Your task to perform on an android device: toggle pop-ups in chrome Image 0: 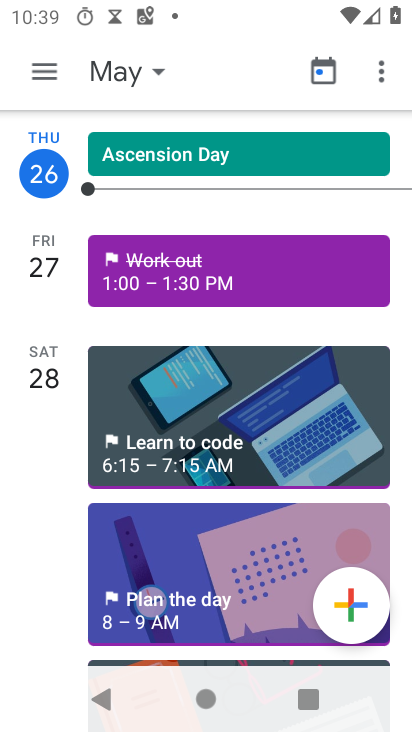
Step 0: press home button
Your task to perform on an android device: toggle pop-ups in chrome Image 1: 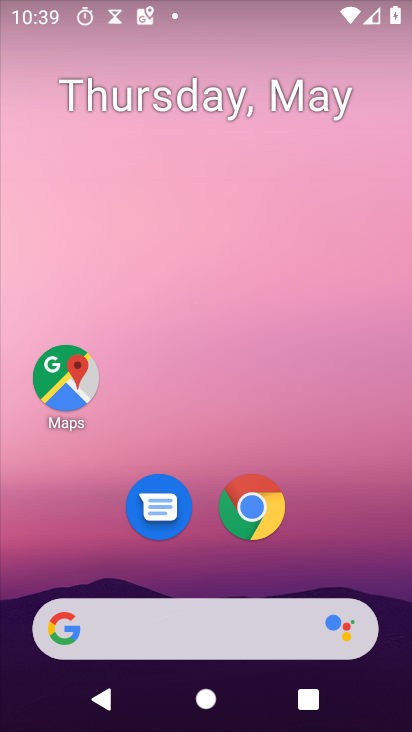
Step 1: click (266, 522)
Your task to perform on an android device: toggle pop-ups in chrome Image 2: 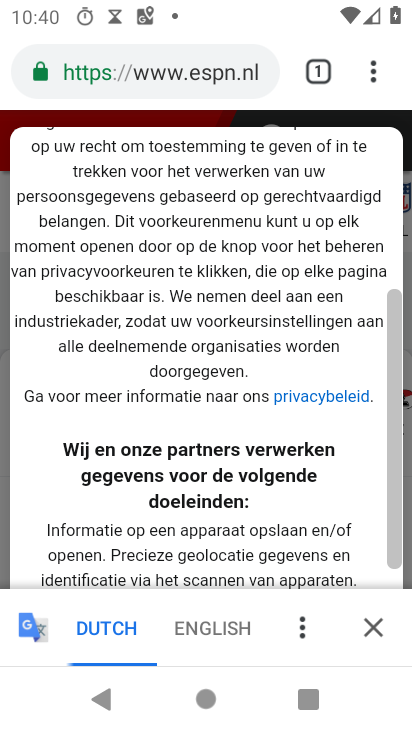
Step 2: click (377, 79)
Your task to perform on an android device: toggle pop-ups in chrome Image 3: 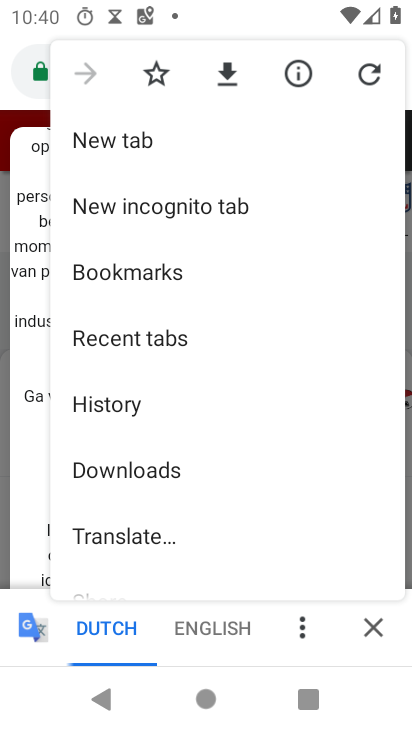
Step 3: drag from (251, 540) to (263, 157)
Your task to perform on an android device: toggle pop-ups in chrome Image 4: 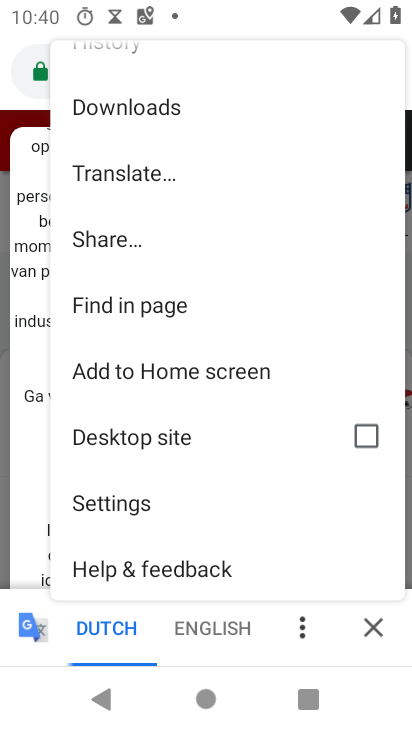
Step 4: click (118, 501)
Your task to perform on an android device: toggle pop-ups in chrome Image 5: 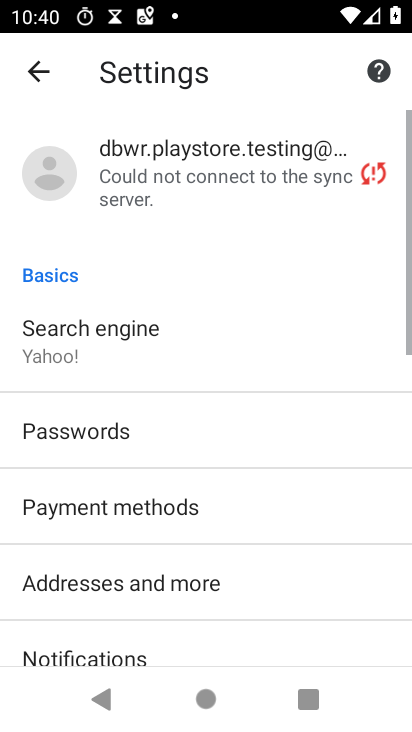
Step 5: drag from (262, 620) to (245, 249)
Your task to perform on an android device: toggle pop-ups in chrome Image 6: 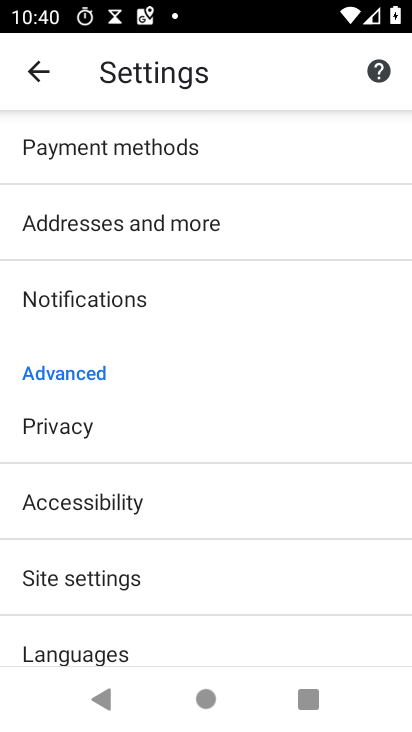
Step 6: click (106, 587)
Your task to perform on an android device: toggle pop-ups in chrome Image 7: 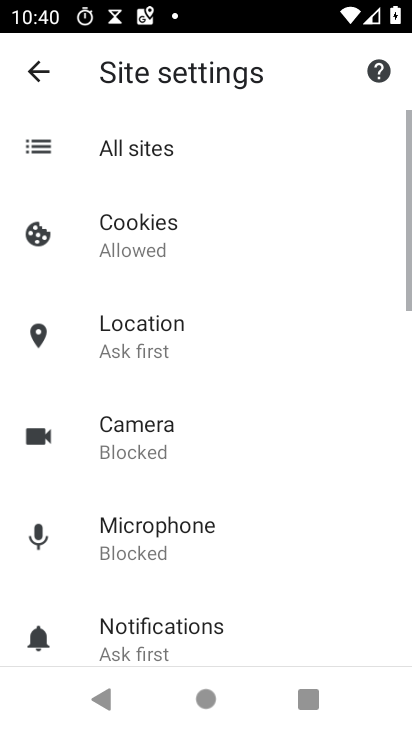
Step 7: drag from (247, 603) to (299, 211)
Your task to perform on an android device: toggle pop-ups in chrome Image 8: 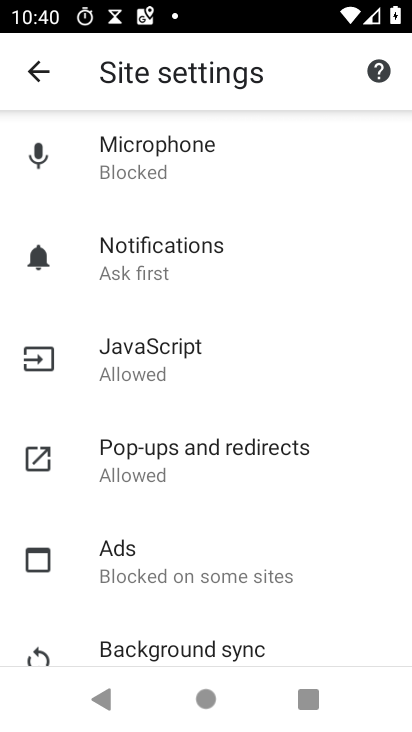
Step 8: click (230, 476)
Your task to perform on an android device: toggle pop-ups in chrome Image 9: 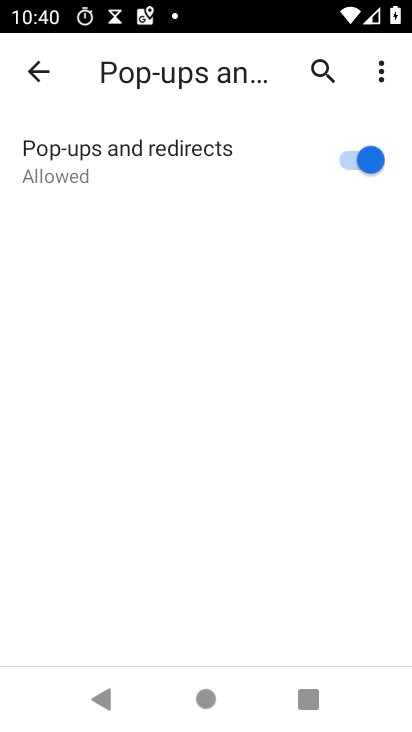
Step 9: click (364, 166)
Your task to perform on an android device: toggle pop-ups in chrome Image 10: 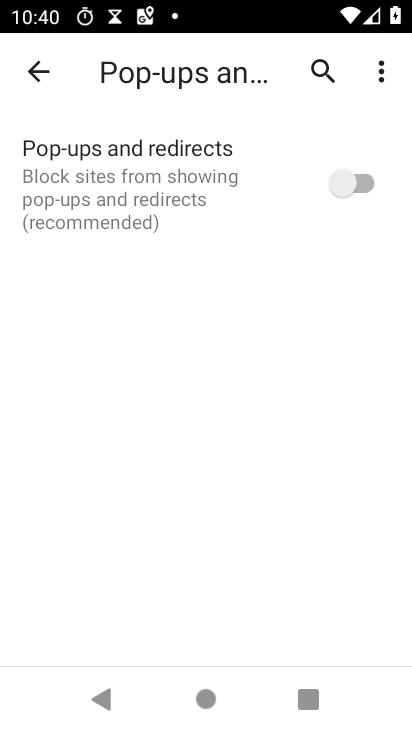
Step 10: task complete